Your task to perform on an android device: Go to Google Image 0: 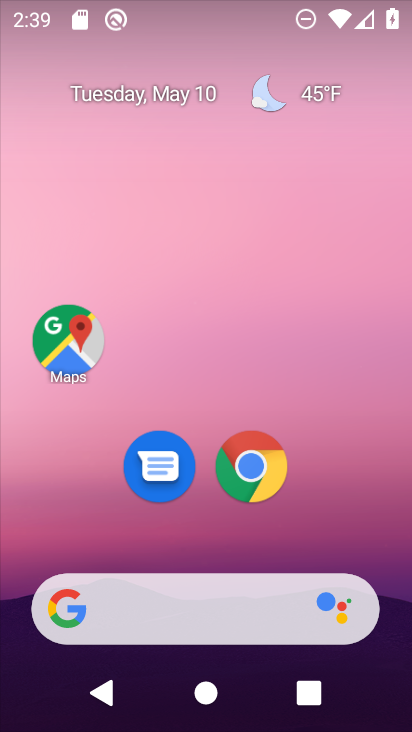
Step 0: drag from (280, 554) to (274, 14)
Your task to perform on an android device: Go to Google Image 1: 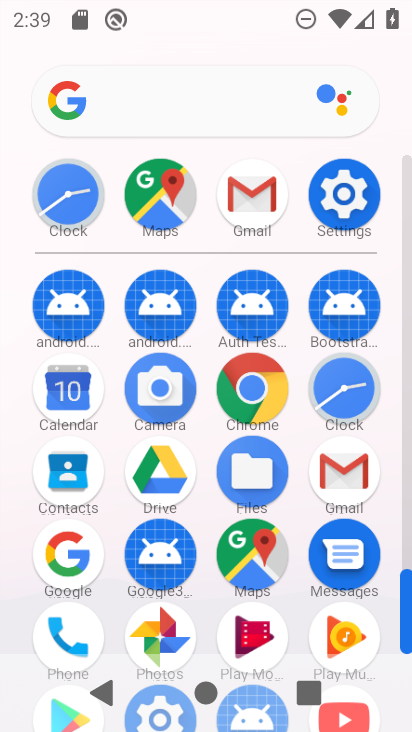
Step 1: click (58, 532)
Your task to perform on an android device: Go to Google Image 2: 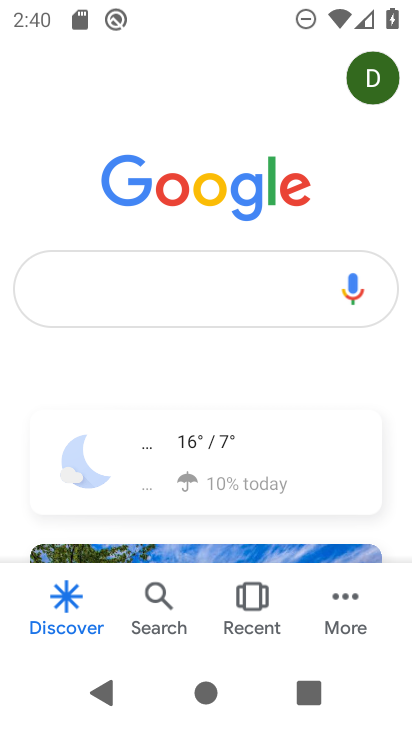
Step 2: task complete